Your task to perform on an android device: open sync settings in chrome Image 0: 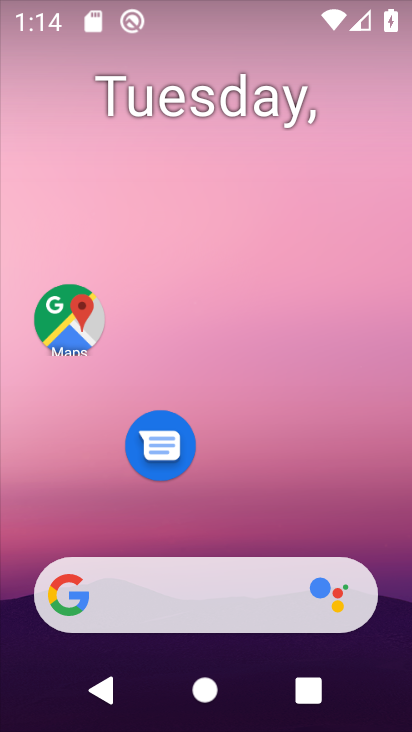
Step 0: drag from (273, 491) to (251, 169)
Your task to perform on an android device: open sync settings in chrome Image 1: 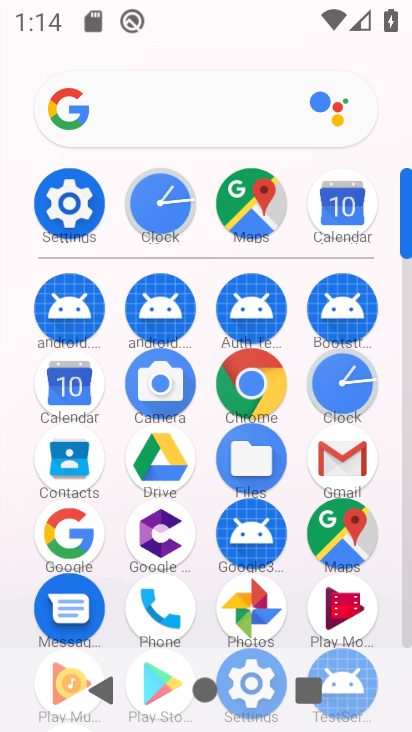
Step 1: click (249, 391)
Your task to perform on an android device: open sync settings in chrome Image 2: 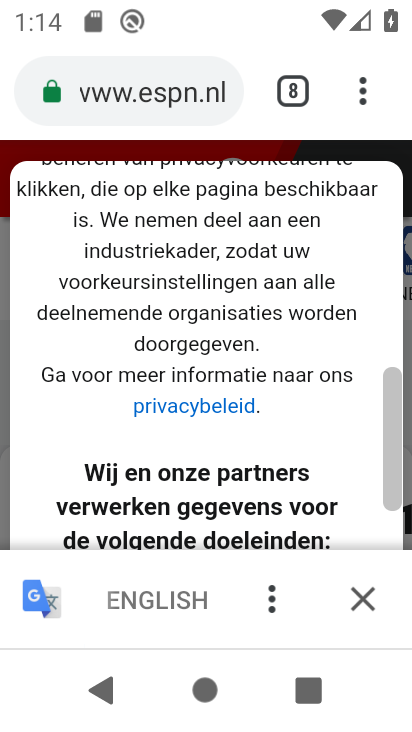
Step 2: click (361, 93)
Your task to perform on an android device: open sync settings in chrome Image 3: 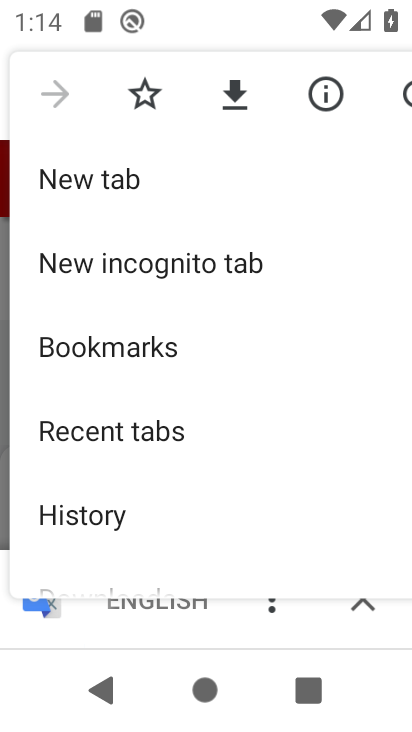
Step 3: drag from (230, 477) to (155, 119)
Your task to perform on an android device: open sync settings in chrome Image 4: 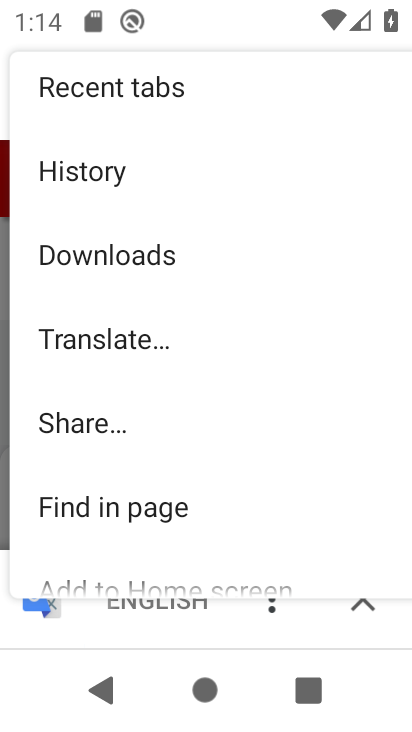
Step 4: drag from (216, 422) to (158, 136)
Your task to perform on an android device: open sync settings in chrome Image 5: 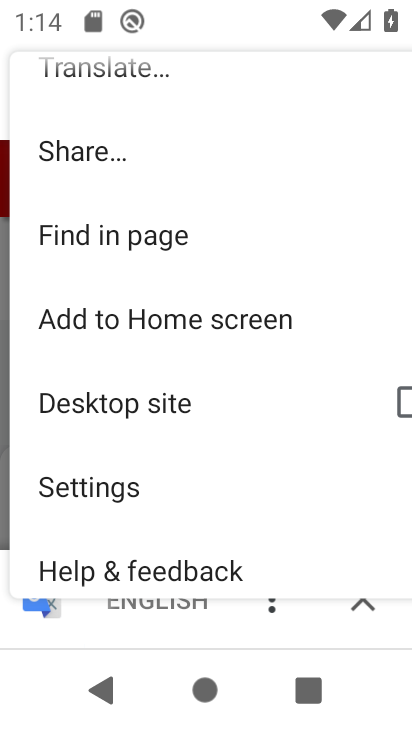
Step 5: click (92, 480)
Your task to perform on an android device: open sync settings in chrome Image 6: 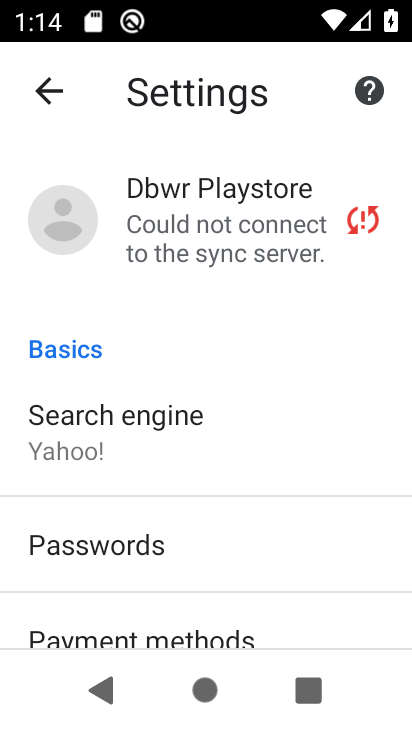
Step 6: click (203, 193)
Your task to perform on an android device: open sync settings in chrome Image 7: 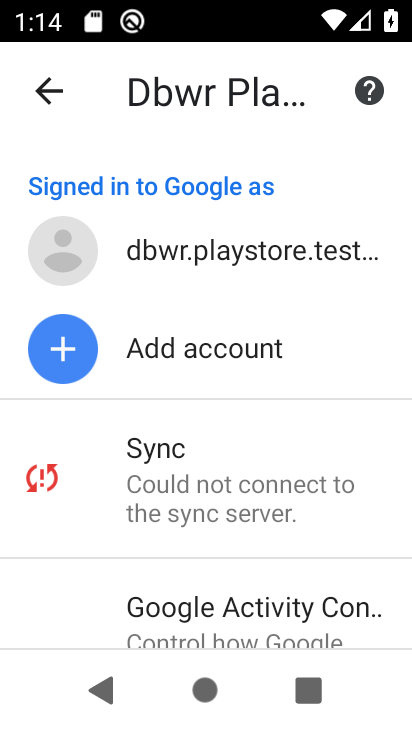
Step 7: click (149, 455)
Your task to perform on an android device: open sync settings in chrome Image 8: 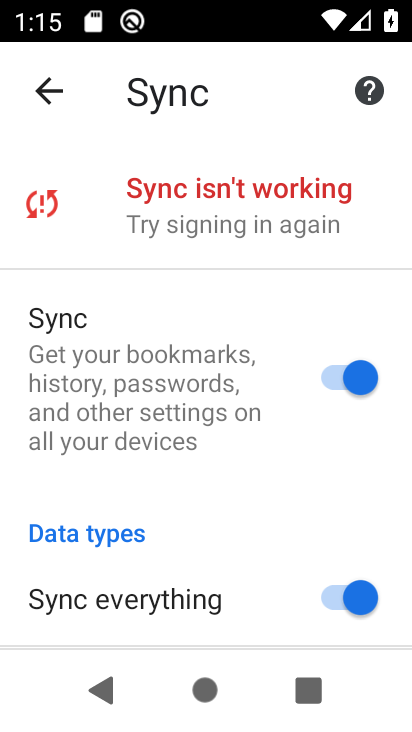
Step 8: task complete